Your task to perform on an android device: add a label to a message in the gmail app Image 0: 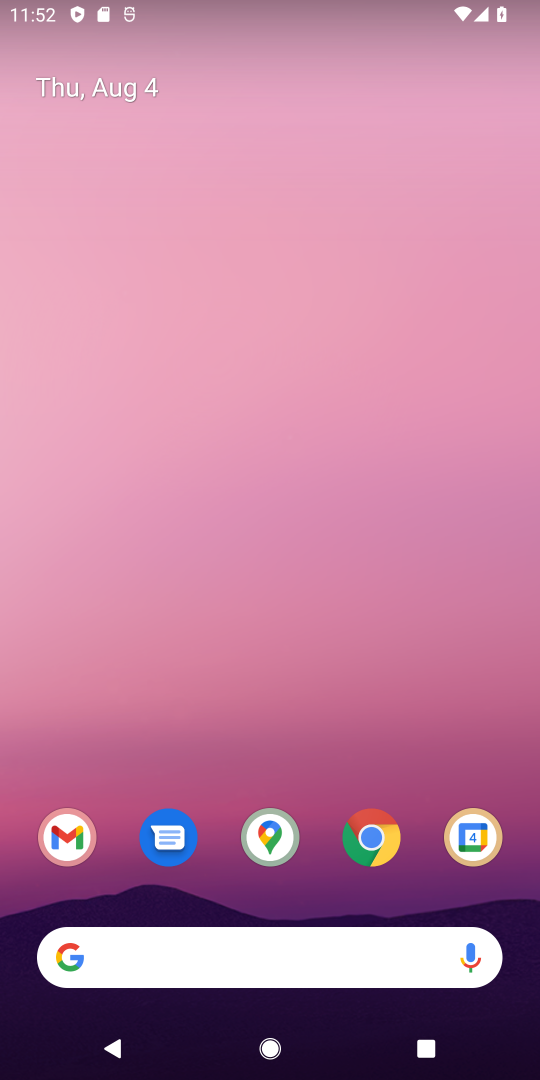
Step 0: click (69, 836)
Your task to perform on an android device: add a label to a message in the gmail app Image 1: 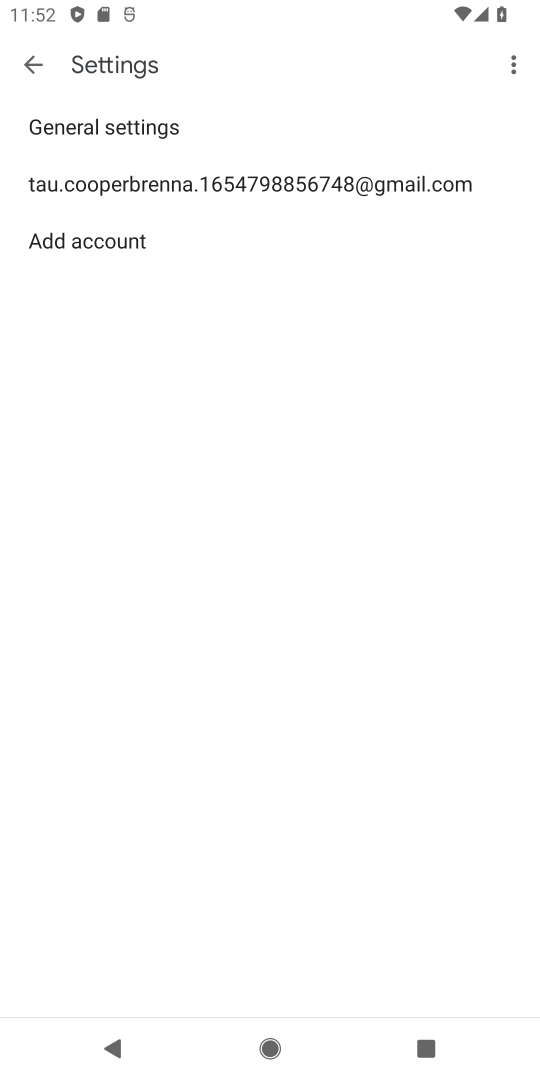
Step 1: click (42, 66)
Your task to perform on an android device: add a label to a message in the gmail app Image 2: 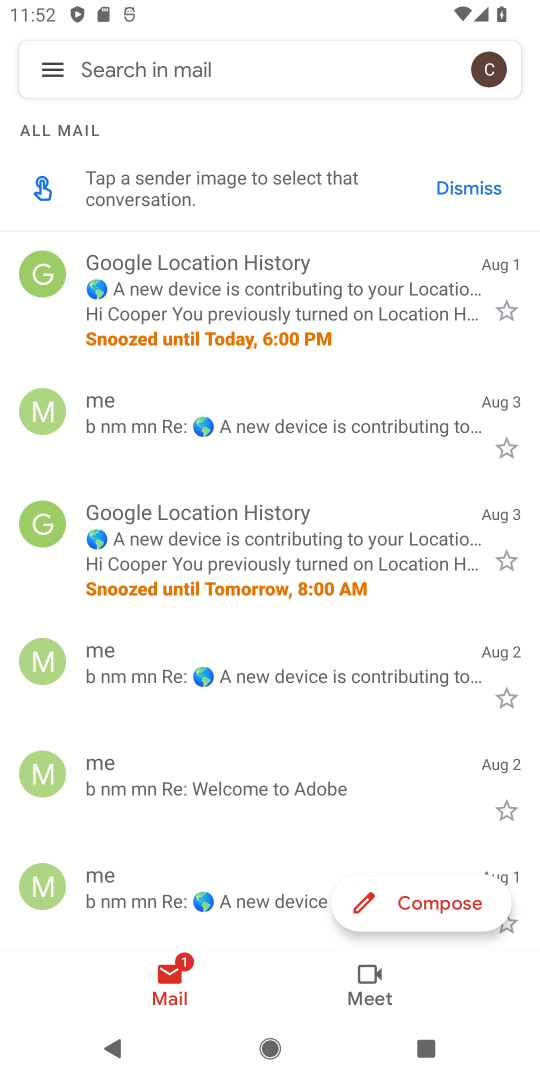
Step 2: click (263, 408)
Your task to perform on an android device: add a label to a message in the gmail app Image 3: 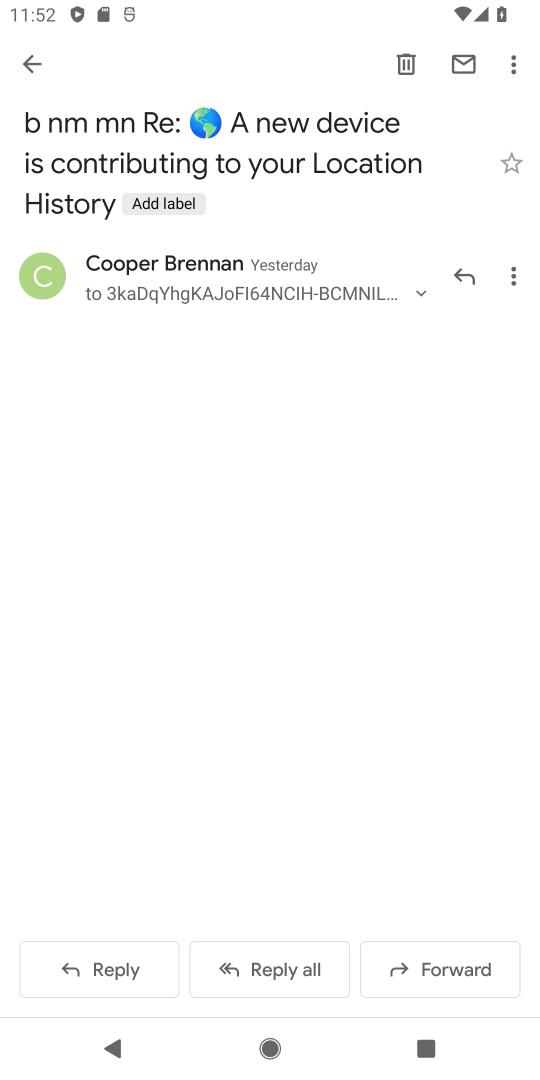
Step 3: click (168, 206)
Your task to perform on an android device: add a label to a message in the gmail app Image 4: 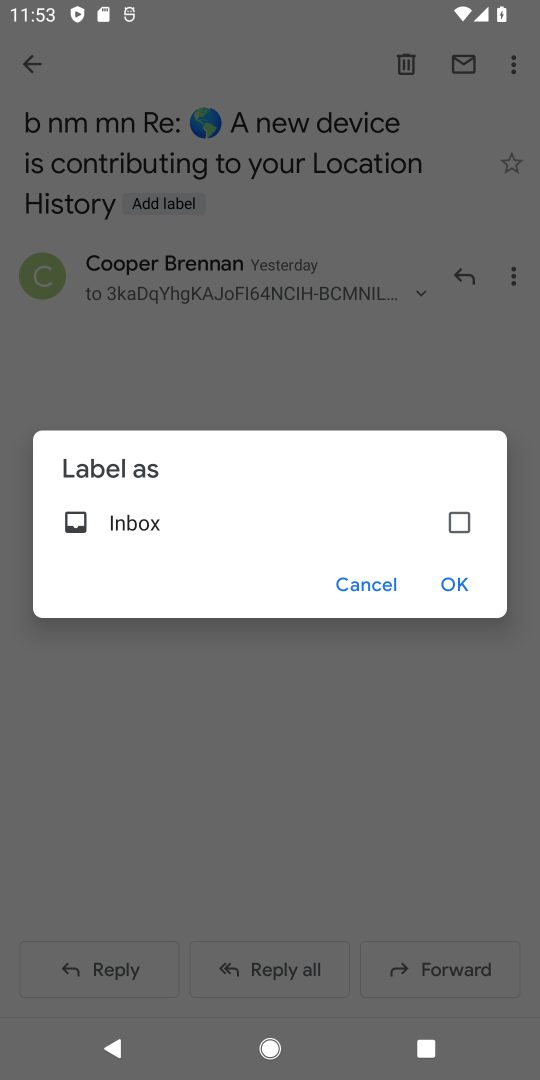
Step 4: click (447, 534)
Your task to perform on an android device: add a label to a message in the gmail app Image 5: 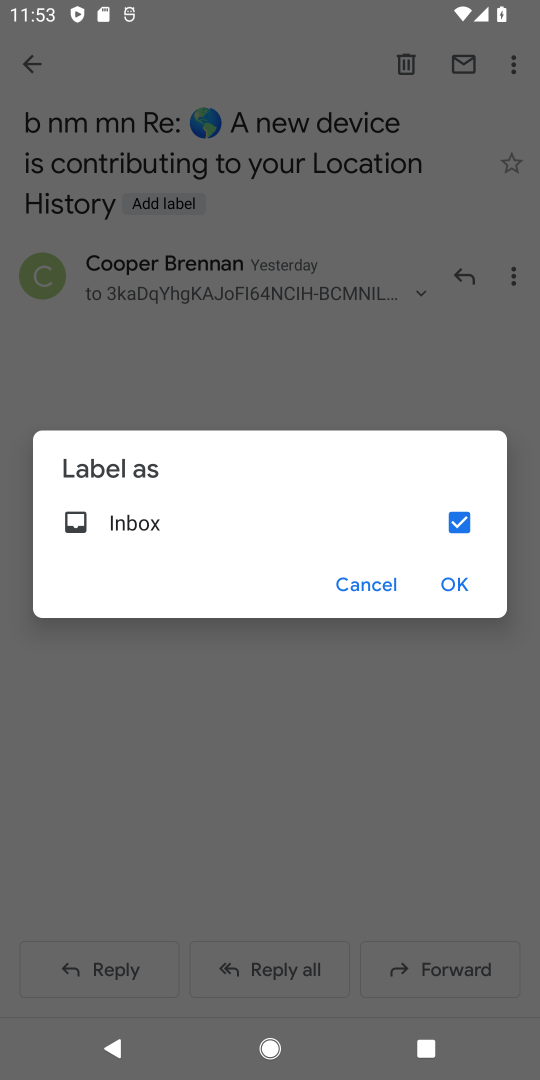
Step 5: click (464, 592)
Your task to perform on an android device: add a label to a message in the gmail app Image 6: 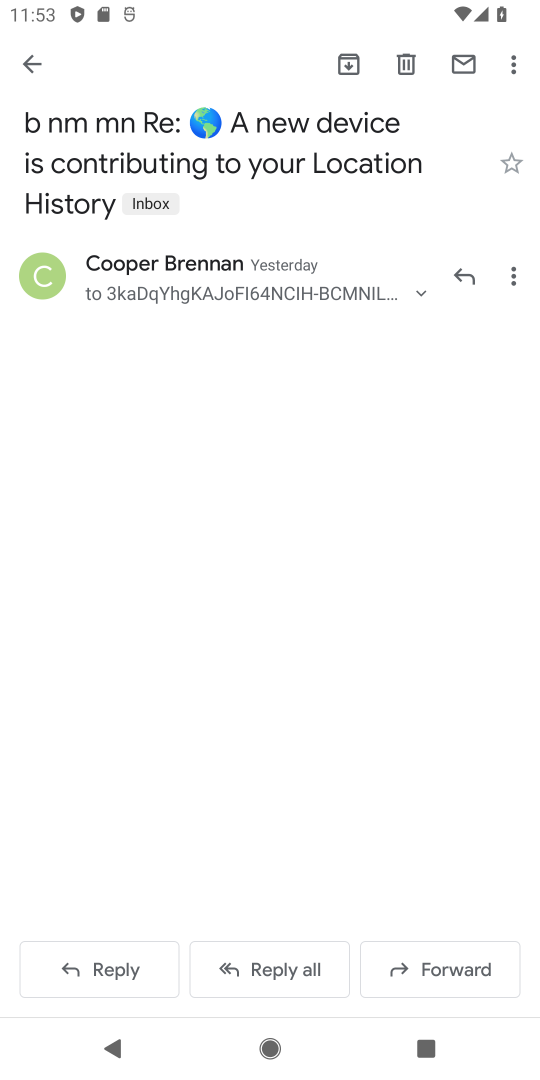
Step 6: task complete